Your task to perform on an android device: find snoozed emails in the gmail app Image 0: 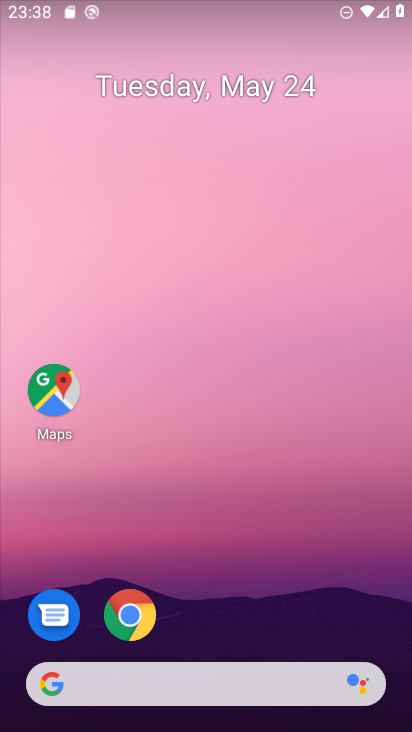
Step 0: press home button
Your task to perform on an android device: find snoozed emails in the gmail app Image 1: 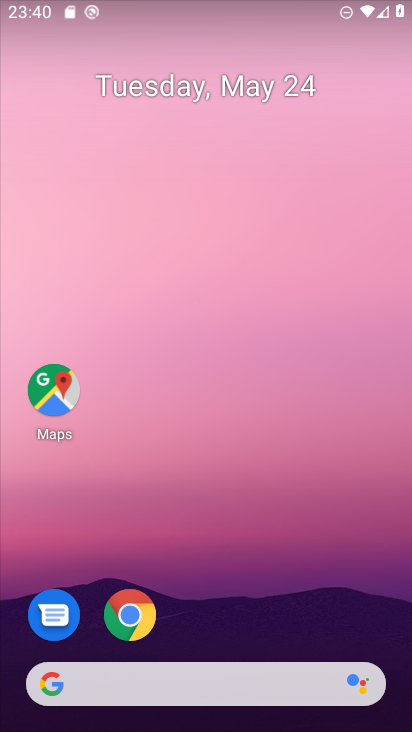
Step 1: drag from (324, 680) to (347, 198)
Your task to perform on an android device: find snoozed emails in the gmail app Image 2: 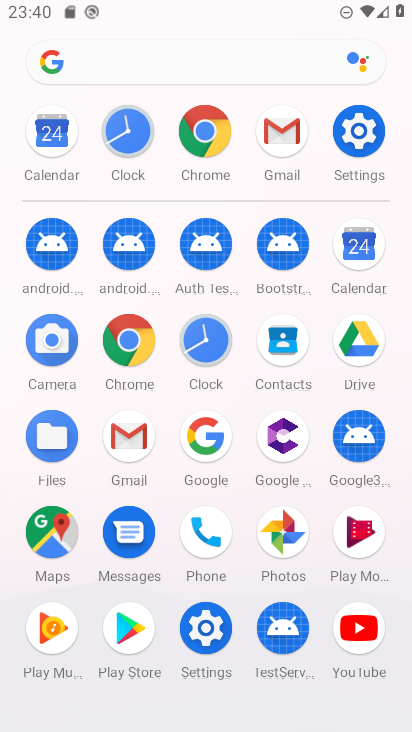
Step 2: click (125, 441)
Your task to perform on an android device: find snoozed emails in the gmail app Image 3: 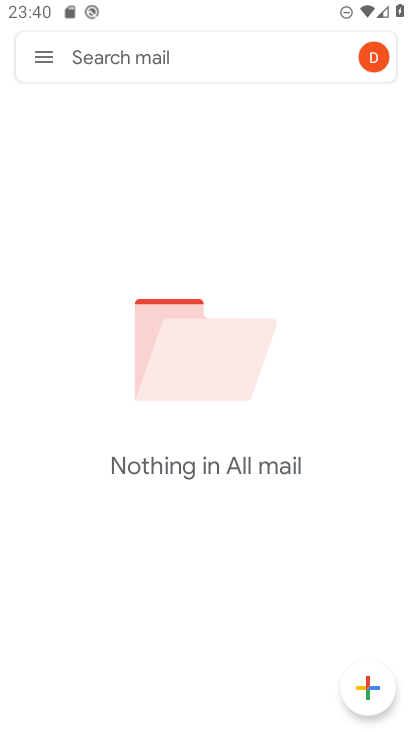
Step 3: click (47, 67)
Your task to perform on an android device: find snoozed emails in the gmail app Image 4: 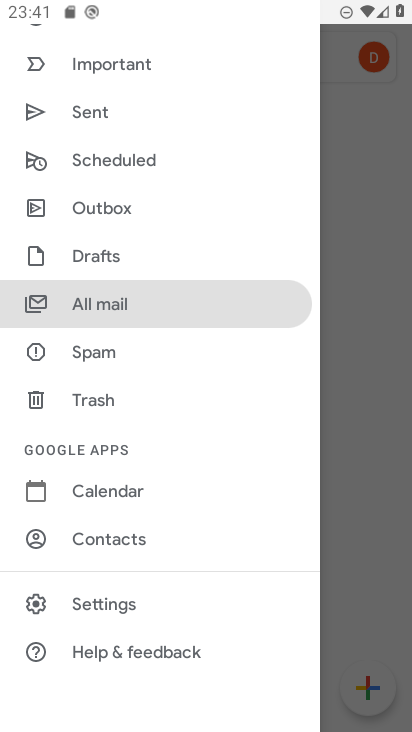
Step 4: drag from (126, 158) to (105, 246)
Your task to perform on an android device: find snoozed emails in the gmail app Image 5: 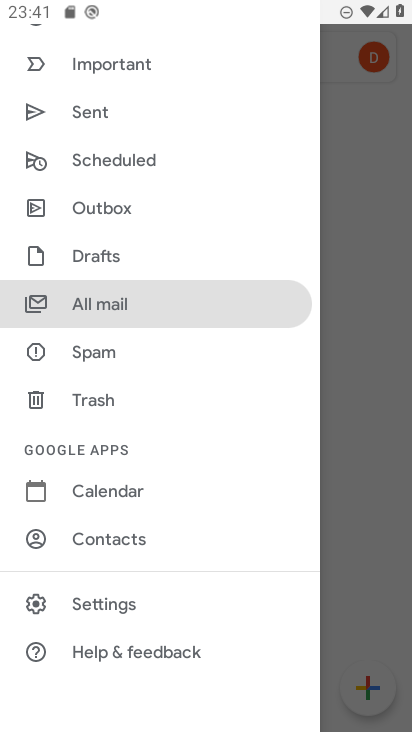
Step 5: drag from (134, 157) to (138, 320)
Your task to perform on an android device: find snoozed emails in the gmail app Image 6: 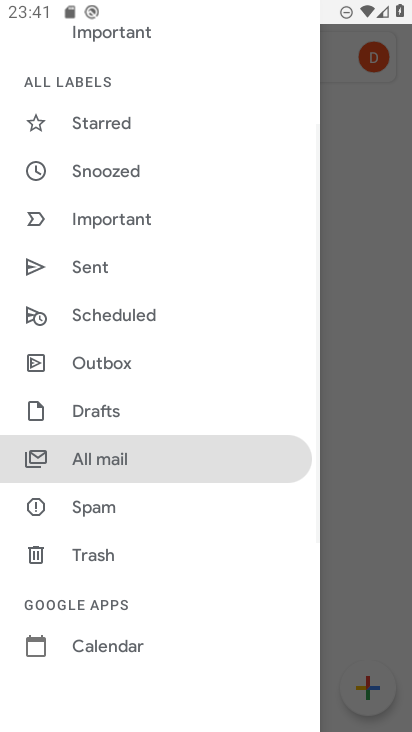
Step 6: click (132, 180)
Your task to perform on an android device: find snoozed emails in the gmail app Image 7: 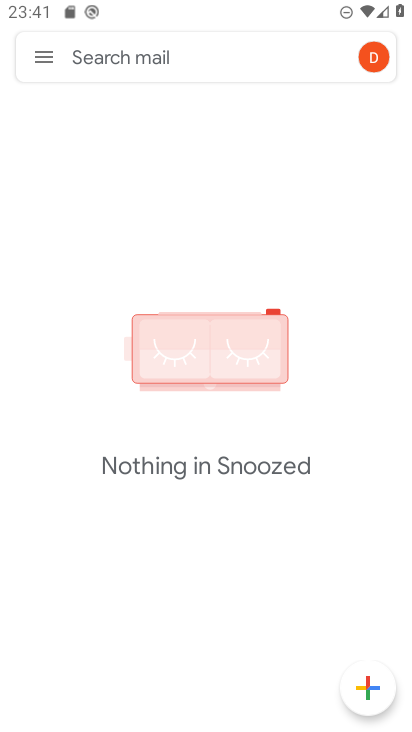
Step 7: task complete